Your task to perform on an android device: change the clock display to show seconds Image 0: 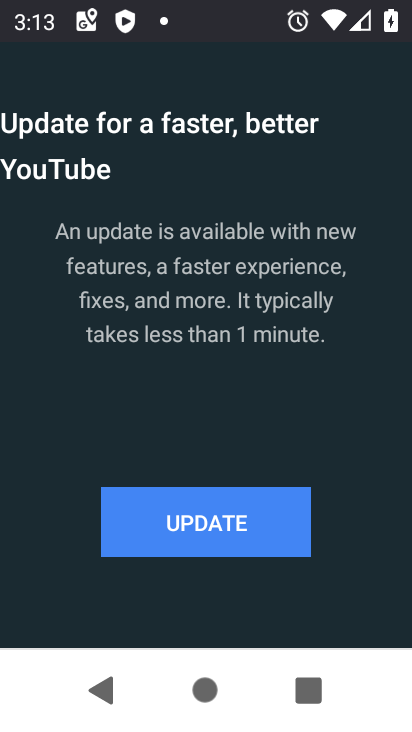
Step 0: press home button
Your task to perform on an android device: change the clock display to show seconds Image 1: 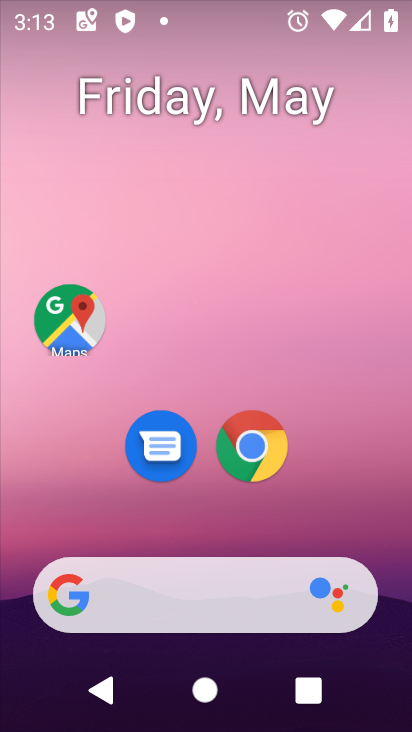
Step 1: drag from (400, 576) to (317, 42)
Your task to perform on an android device: change the clock display to show seconds Image 2: 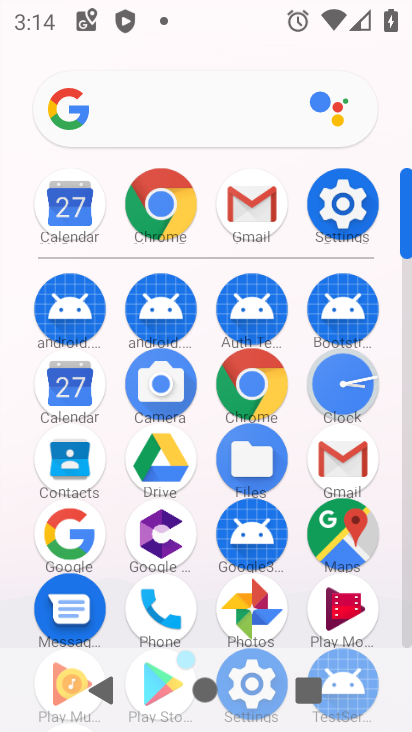
Step 2: click (358, 366)
Your task to perform on an android device: change the clock display to show seconds Image 3: 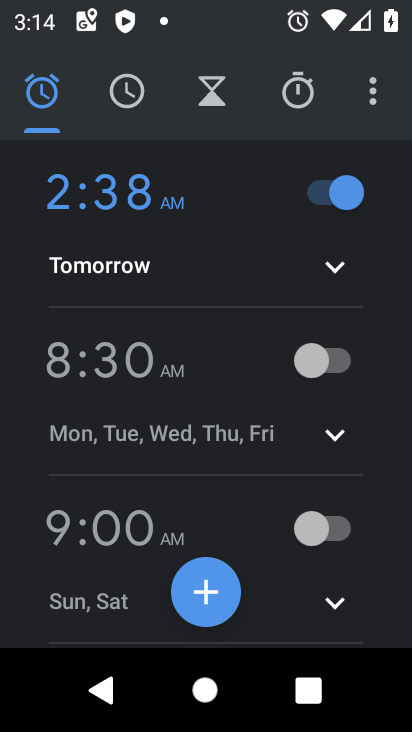
Step 3: click (377, 95)
Your task to perform on an android device: change the clock display to show seconds Image 4: 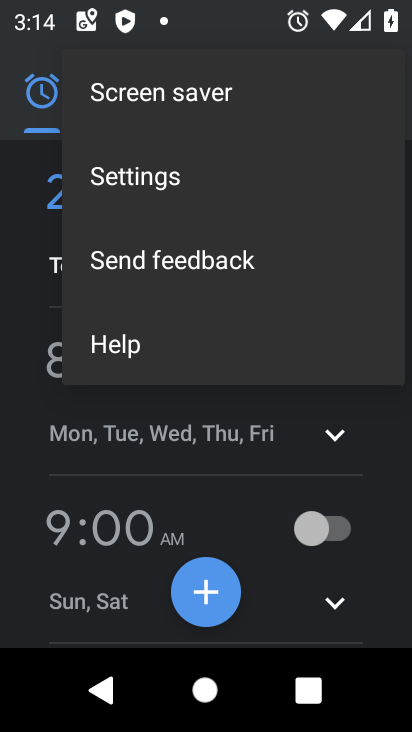
Step 4: click (273, 169)
Your task to perform on an android device: change the clock display to show seconds Image 5: 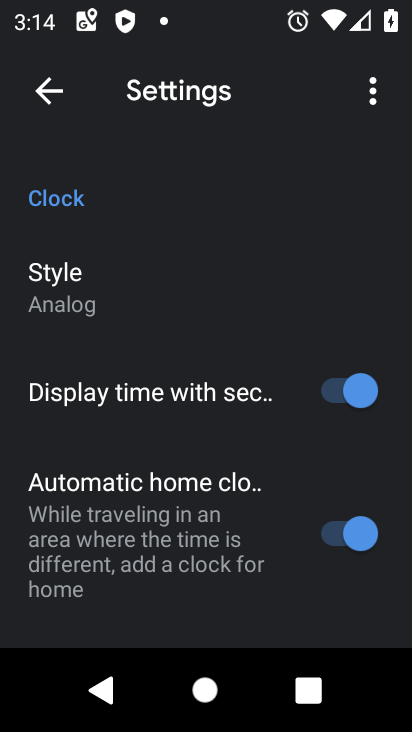
Step 5: task complete